Your task to perform on an android device: turn off location Image 0: 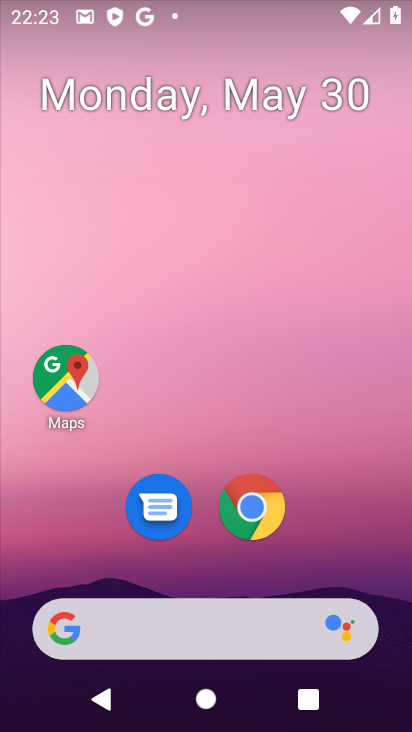
Step 0: drag from (381, 561) to (376, 198)
Your task to perform on an android device: turn off location Image 1: 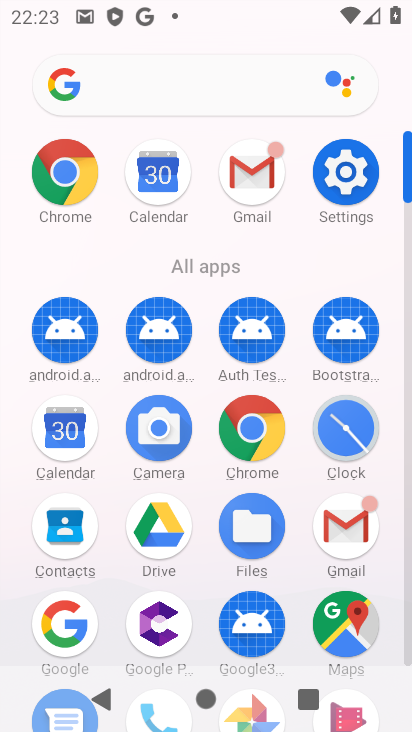
Step 1: click (345, 185)
Your task to perform on an android device: turn off location Image 2: 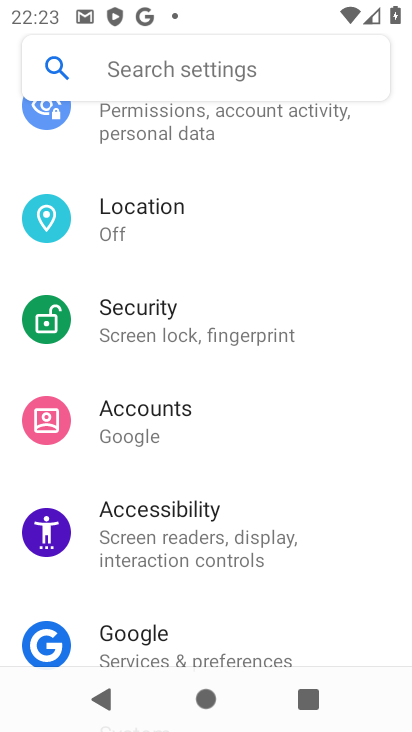
Step 2: drag from (357, 514) to (350, 367)
Your task to perform on an android device: turn off location Image 3: 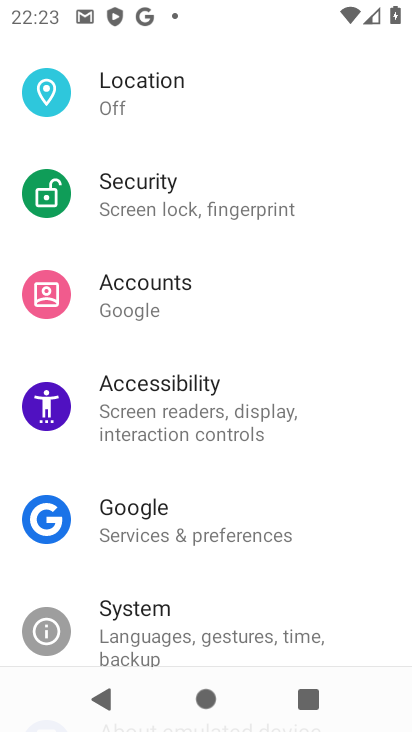
Step 3: drag from (357, 560) to (344, 355)
Your task to perform on an android device: turn off location Image 4: 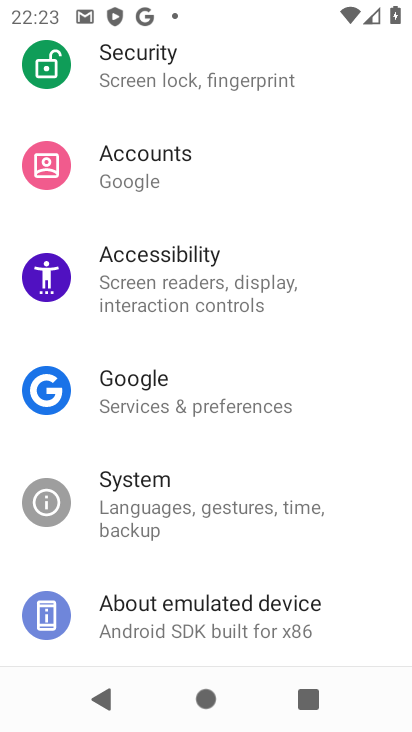
Step 4: drag from (350, 293) to (352, 454)
Your task to perform on an android device: turn off location Image 5: 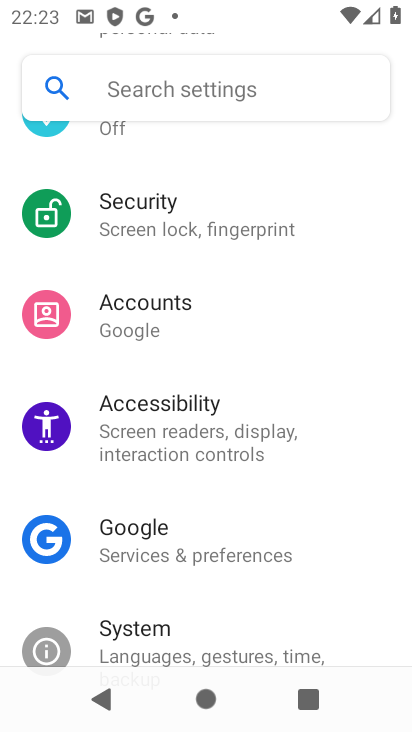
Step 5: drag from (358, 299) to (355, 389)
Your task to perform on an android device: turn off location Image 6: 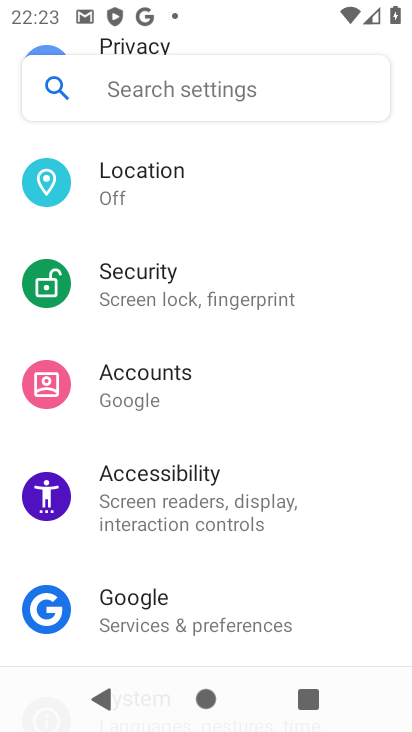
Step 6: drag from (350, 279) to (341, 384)
Your task to perform on an android device: turn off location Image 7: 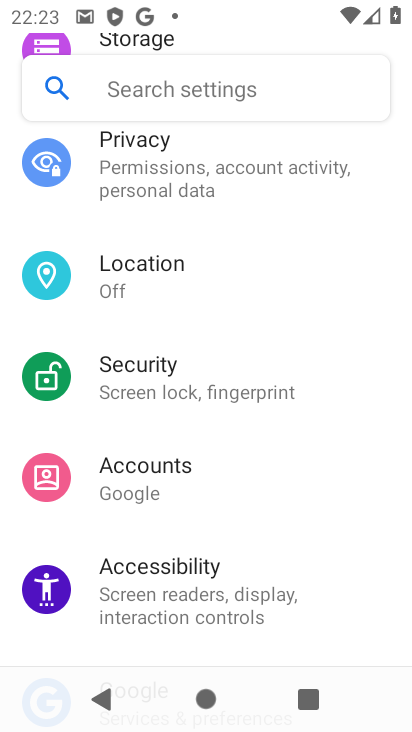
Step 7: drag from (337, 259) to (352, 376)
Your task to perform on an android device: turn off location Image 8: 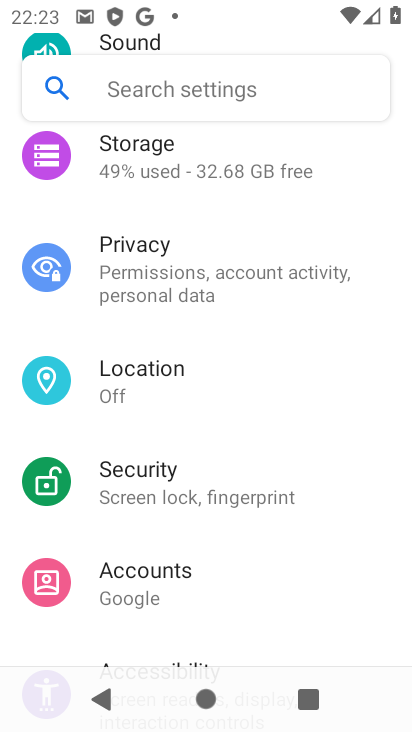
Step 8: drag from (360, 237) to (361, 351)
Your task to perform on an android device: turn off location Image 9: 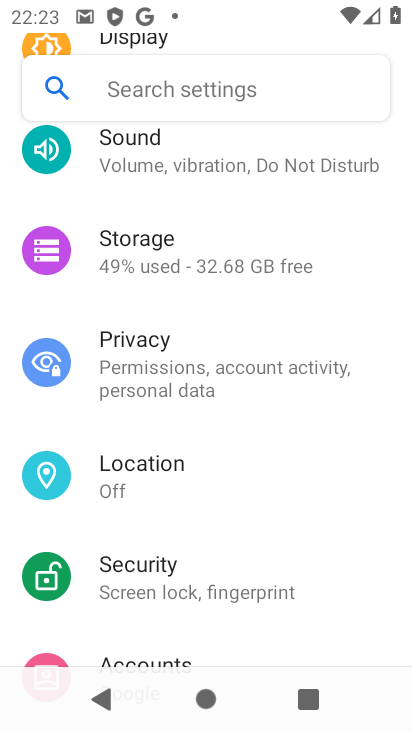
Step 9: drag from (359, 299) to (364, 385)
Your task to perform on an android device: turn off location Image 10: 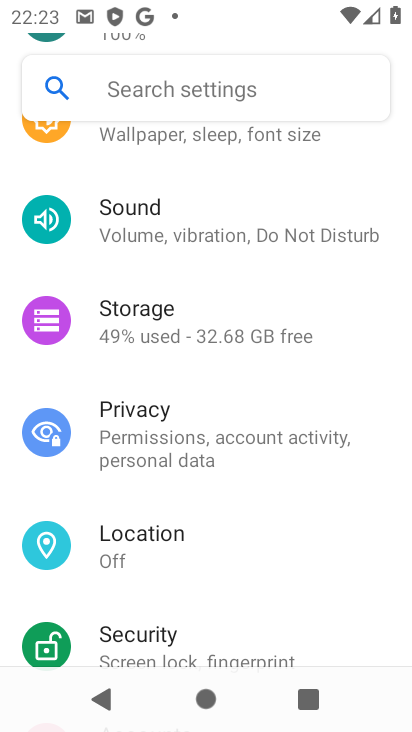
Step 10: click (152, 559)
Your task to perform on an android device: turn off location Image 11: 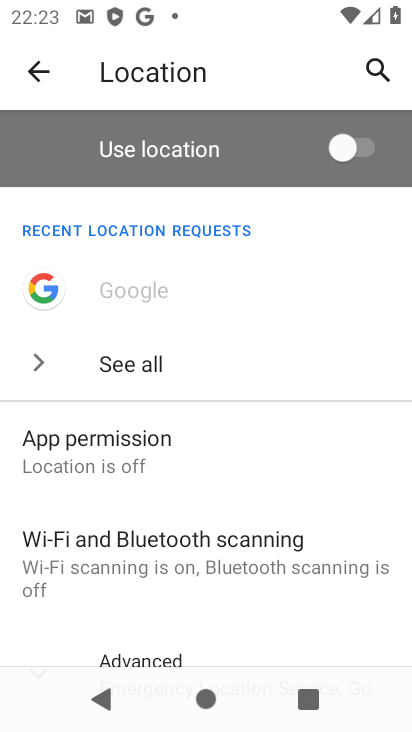
Step 11: task complete